Your task to perform on an android device: What's on the menu at Olive Garden? Image 0: 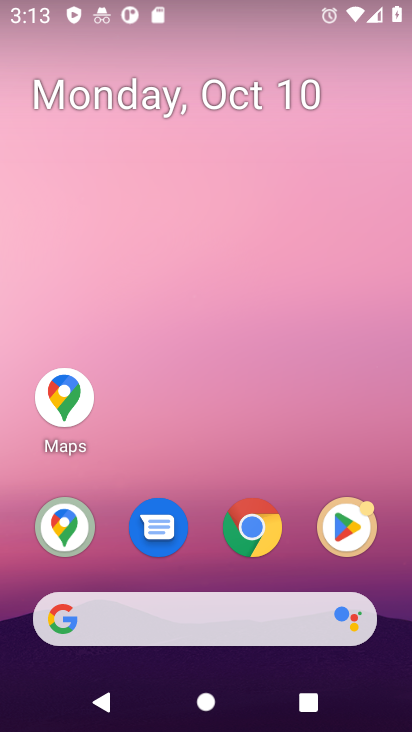
Step 0: click (252, 524)
Your task to perform on an android device: What's on the menu at Olive Garden? Image 1: 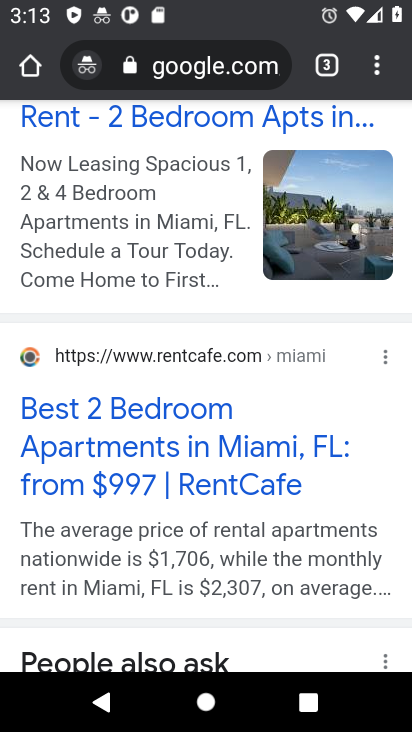
Step 1: click (248, 61)
Your task to perform on an android device: What's on the menu at Olive Garden? Image 2: 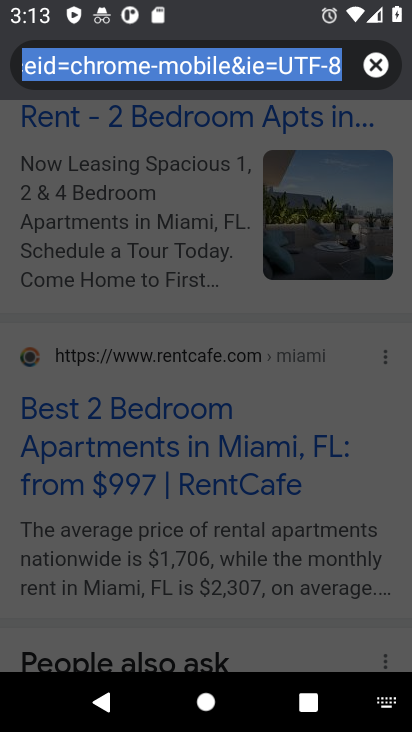
Step 2: click (377, 64)
Your task to perform on an android device: What's on the menu at Olive Garden? Image 3: 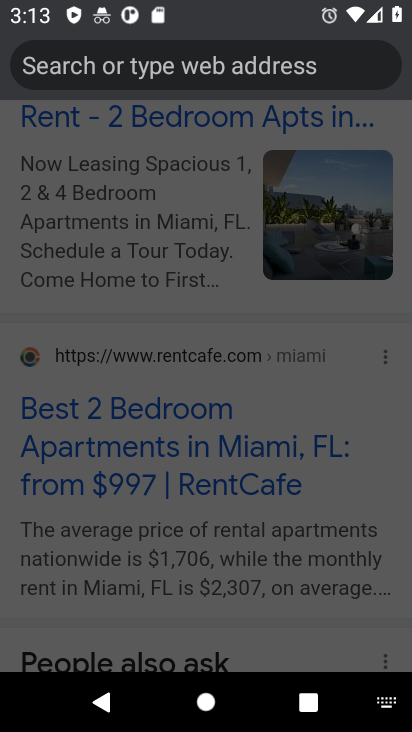
Step 3: type "menu at Olive Garden"
Your task to perform on an android device: What's on the menu at Olive Garden? Image 4: 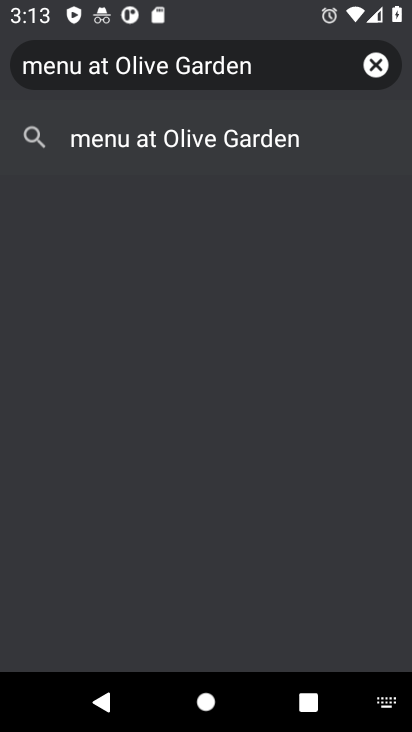
Step 4: click (237, 133)
Your task to perform on an android device: What's on the menu at Olive Garden? Image 5: 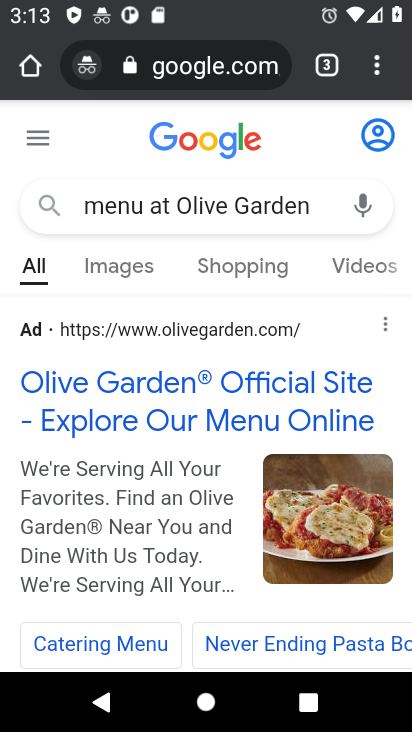
Step 5: drag from (158, 439) to (226, 324)
Your task to perform on an android device: What's on the menu at Olive Garden? Image 6: 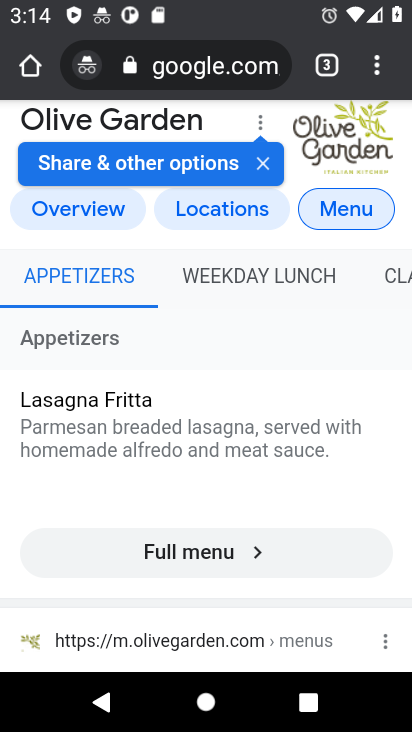
Step 6: drag from (154, 486) to (223, 416)
Your task to perform on an android device: What's on the menu at Olive Garden? Image 7: 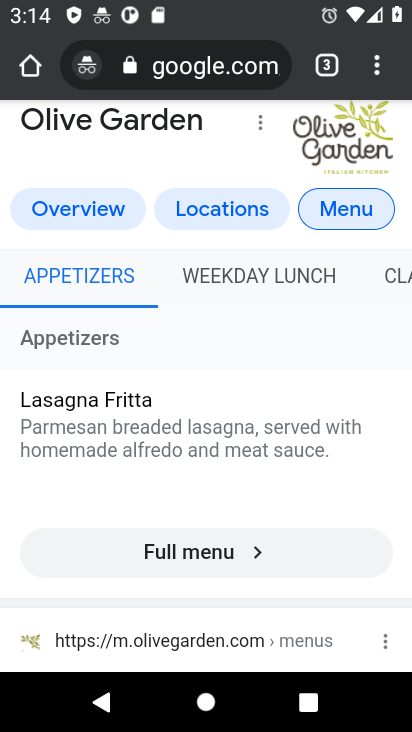
Step 7: click (195, 543)
Your task to perform on an android device: What's on the menu at Olive Garden? Image 8: 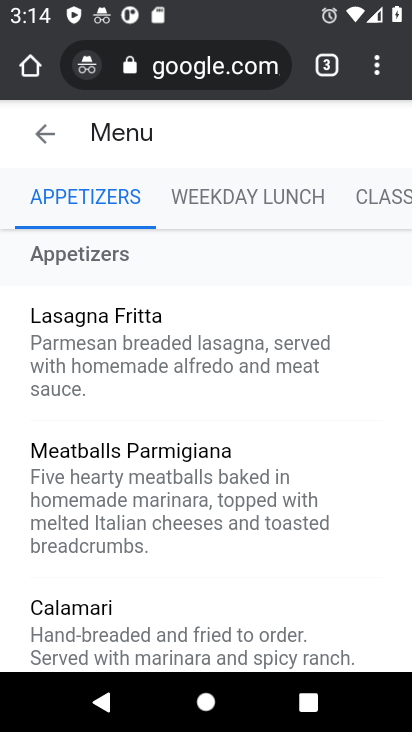
Step 8: task complete